Your task to perform on an android device: change the clock display to digital Image 0: 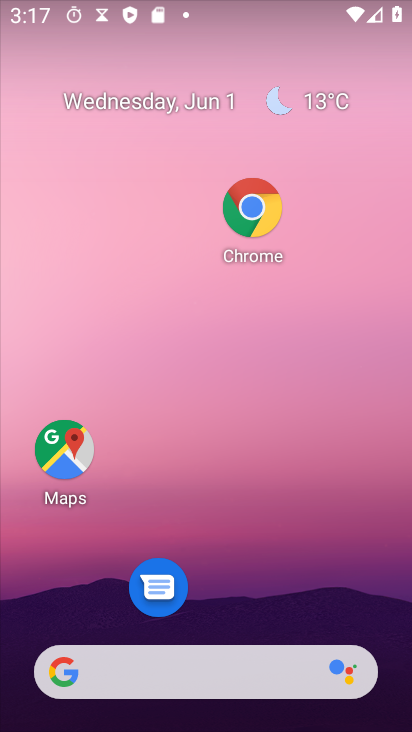
Step 0: drag from (271, 531) to (284, 244)
Your task to perform on an android device: change the clock display to digital Image 1: 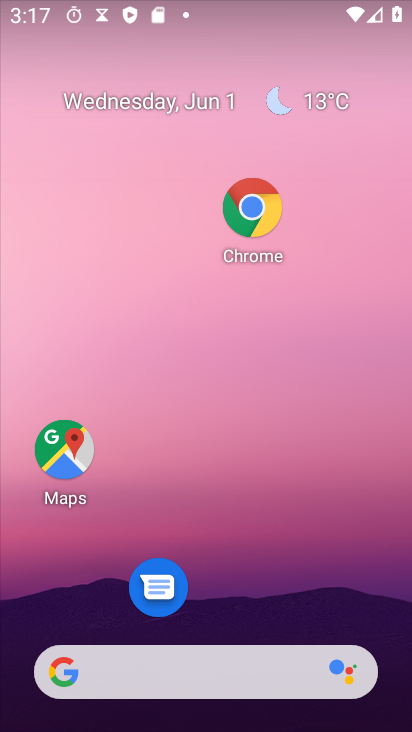
Step 1: drag from (287, 708) to (143, 155)
Your task to perform on an android device: change the clock display to digital Image 2: 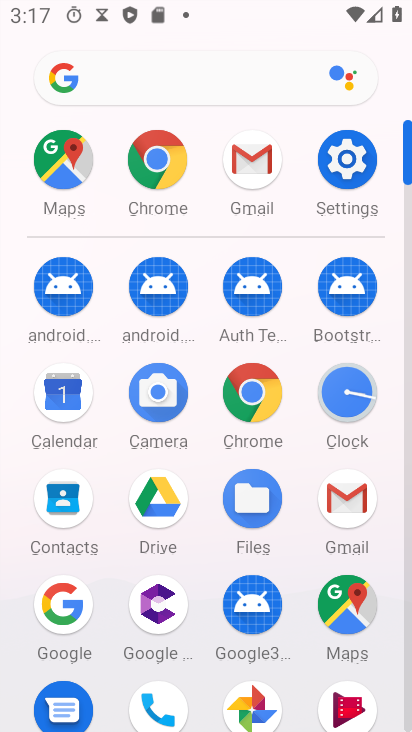
Step 2: click (349, 391)
Your task to perform on an android device: change the clock display to digital Image 3: 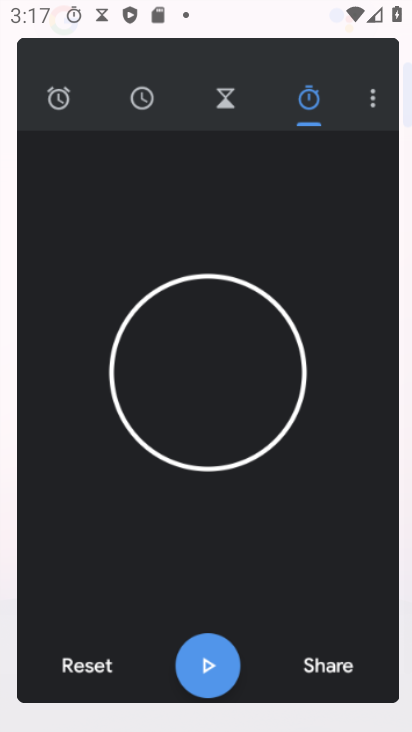
Step 3: click (349, 391)
Your task to perform on an android device: change the clock display to digital Image 4: 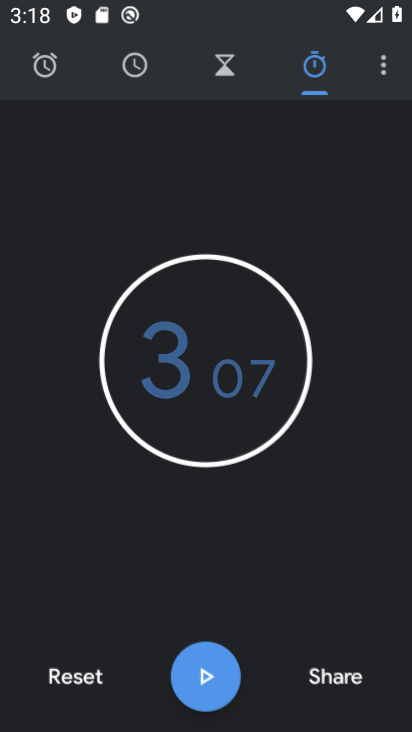
Step 4: click (348, 392)
Your task to perform on an android device: change the clock display to digital Image 5: 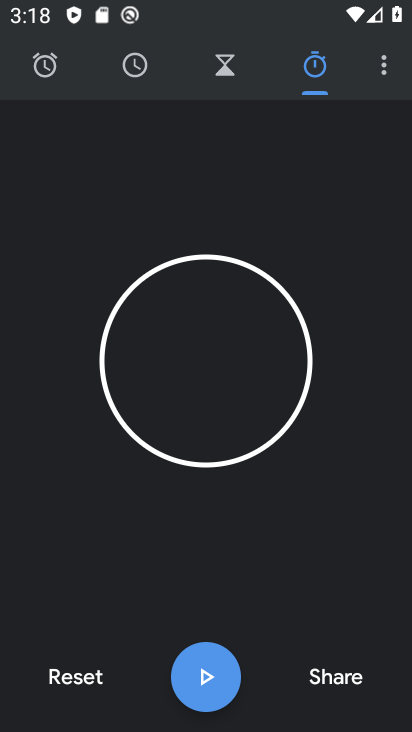
Step 5: click (346, 391)
Your task to perform on an android device: change the clock display to digital Image 6: 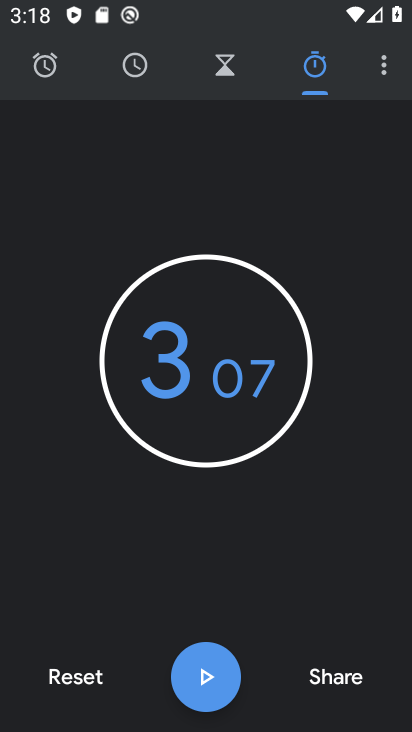
Step 6: drag from (380, 73) to (207, 133)
Your task to perform on an android device: change the clock display to digital Image 7: 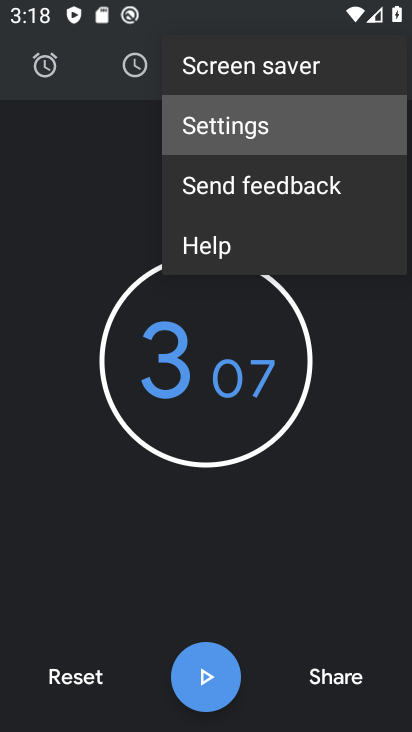
Step 7: click (207, 132)
Your task to perform on an android device: change the clock display to digital Image 8: 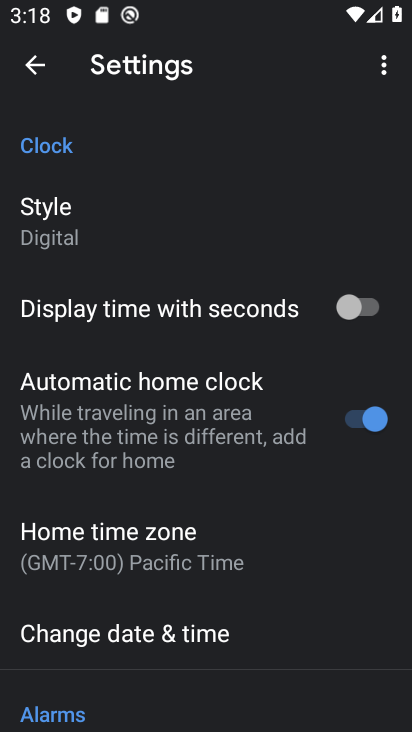
Step 8: click (124, 213)
Your task to perform on an android device: change the clock display to digital Image 9: 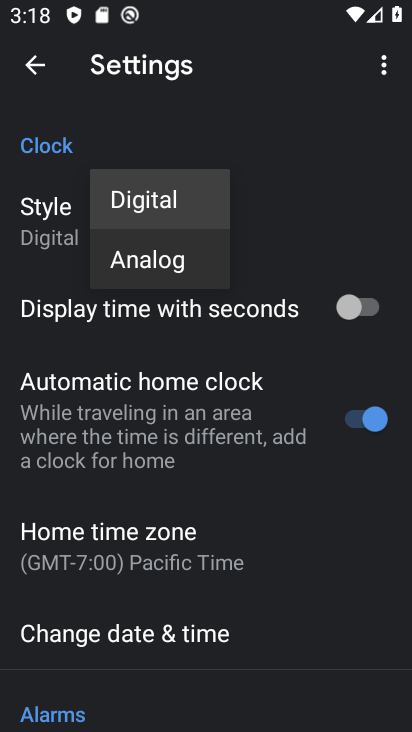
Step 9: click (152, 202)
Your task to perform on an android device: change the clock display to digital Image 10: 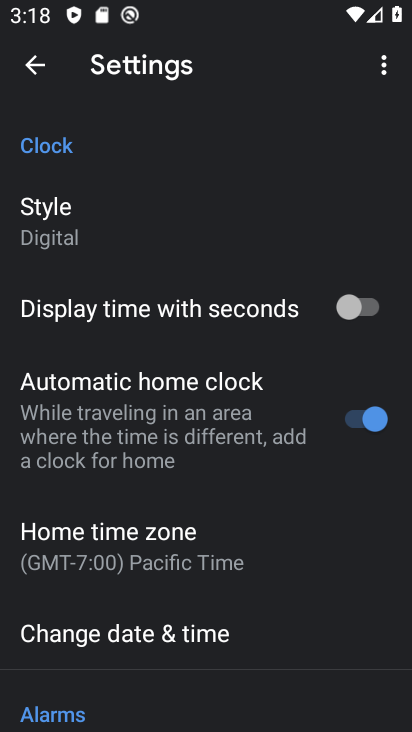
Step 10: task complete